Your task to perform on an android device: Go to internet settings Image 0: 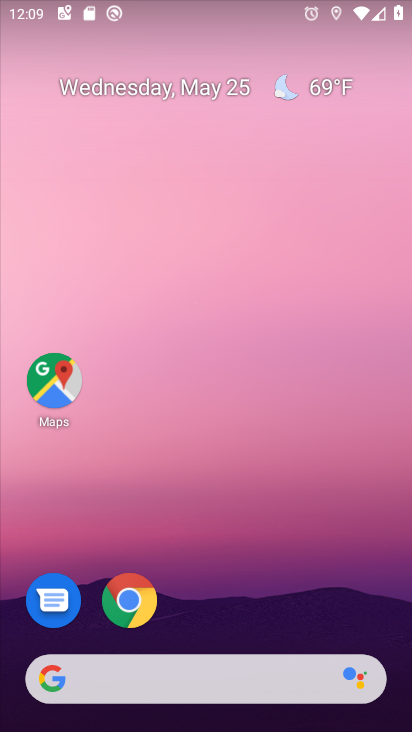
Step 0: drag from (388, 609) to (390, 181)
Your task to perform on an android device: Go to internet settings Image 1: 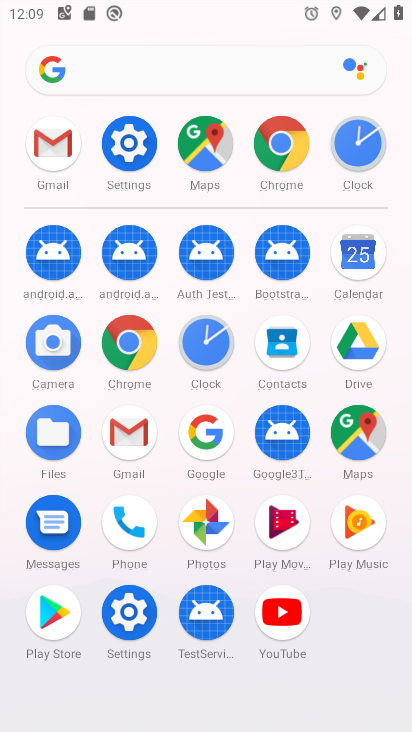
Step 1: click (103, 166)
Your task to perform on an android device: Go to internet settings Image 2: 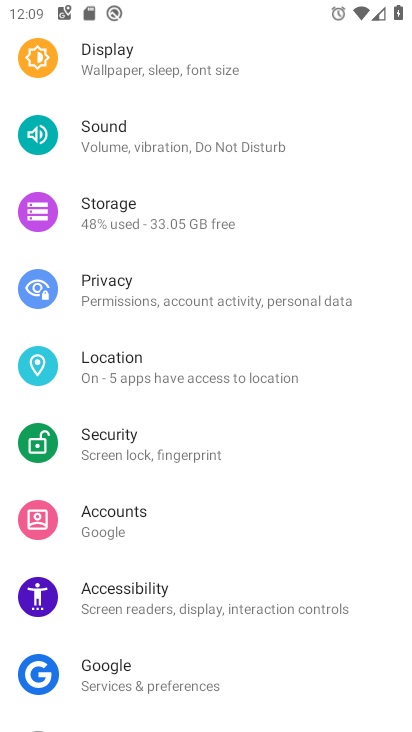
Step 2: drag from (358, 232) to (349, 330)
Your task to perform on an android device: Go to internet settings Image 3: 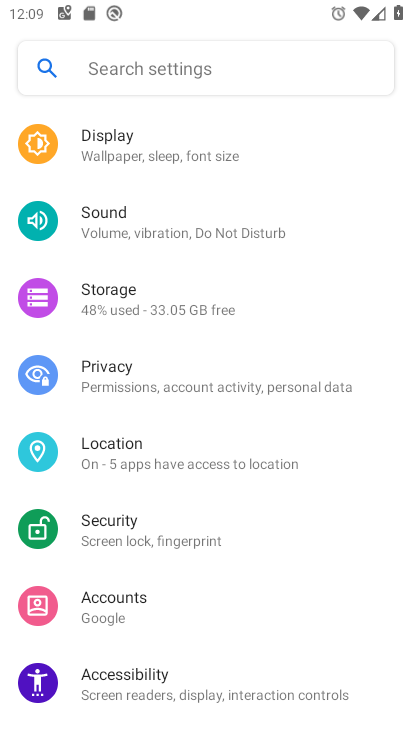
Step 3: drag from (352, 213) to (356, 329)
Your task to perform on an android device: Go to internet settings Image 4: 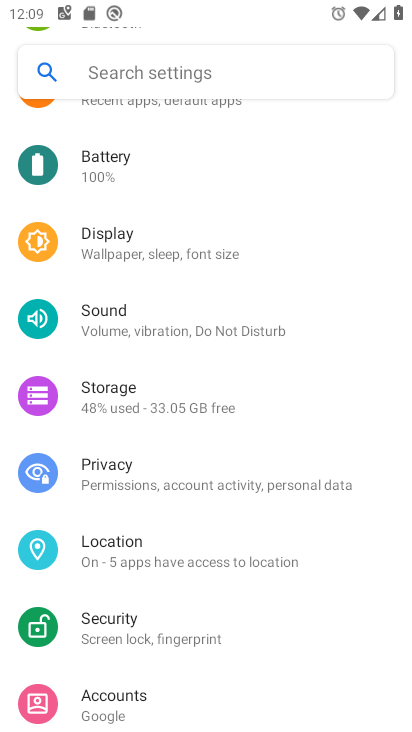
Step 4: drag from (355, 202) to (348, 313)
Your task to perform on an android device: Go to internet settings Image 5: 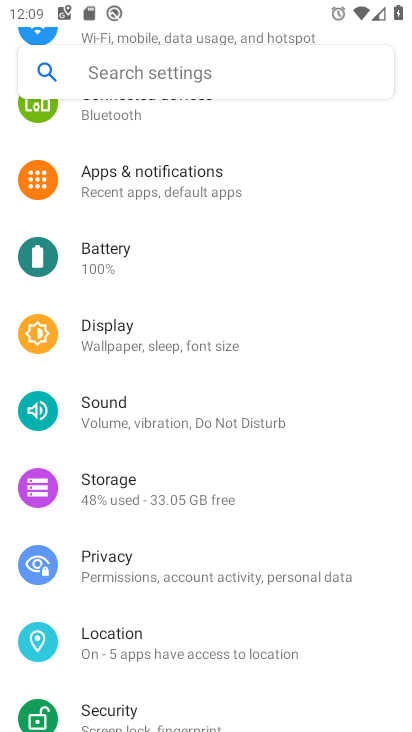
Step 5: drag from (336, 174) to (329, 301)
Your task to perform on an android device: Go to internet settings Image 6: 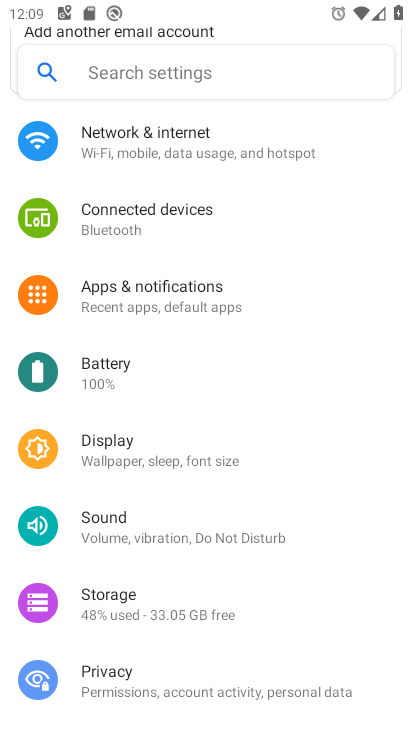
Step 6: drag from (347, 181) to (339, 319)
Your task to perform on an android device: Go to internet settings Image 7: 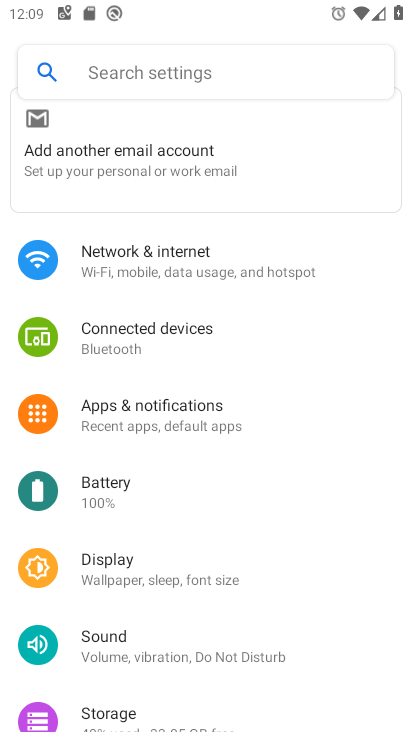
Step 7: click (239, 273)
Your task to perform on an android device: Go to internet settings Image 8: 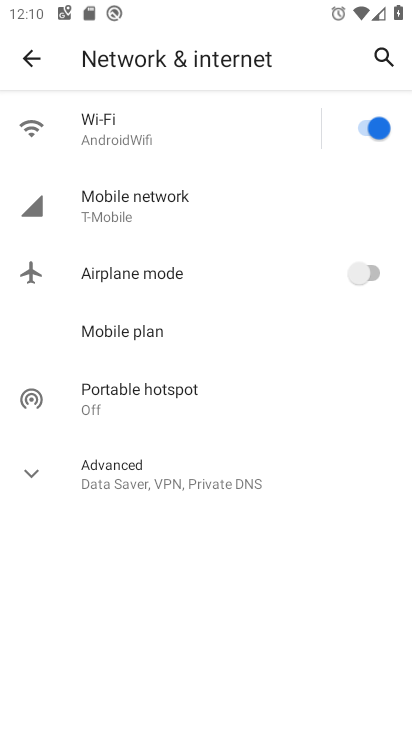
Step 8: task complete